Your task to perform on an android device: Go to Amazon Image 0: 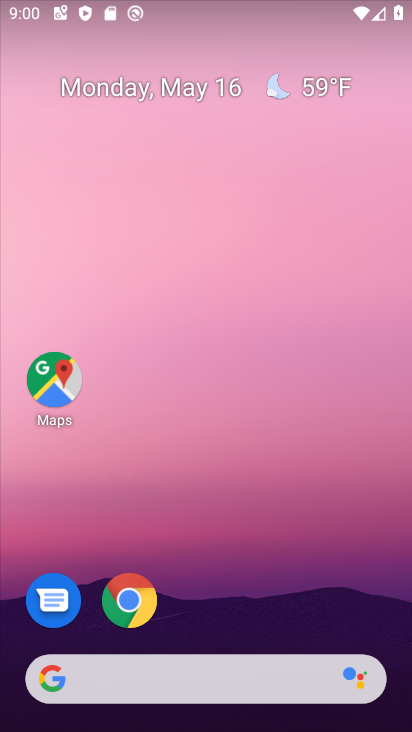
Step 0: click (141, 602)
Your task to perform on an android device: Go to Amazon Image 1: 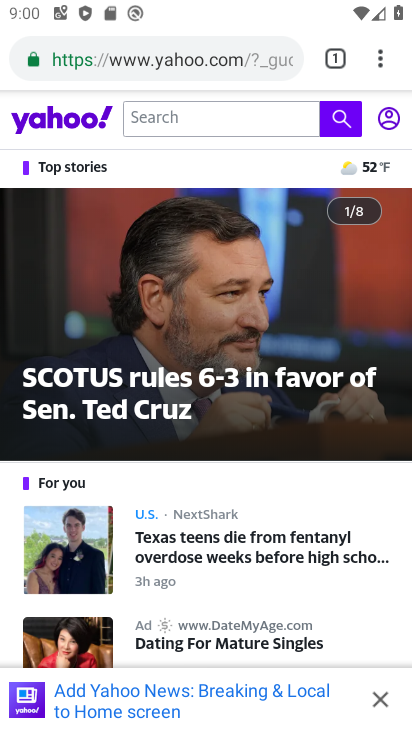
Step 1: click (334, 59)
Your task to perform on an android device: Go to Amazon Image 2: 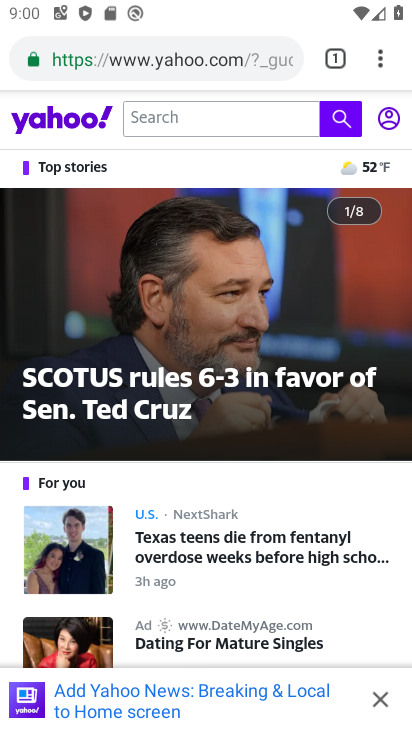
Step 2: click (337, 63)
Your task to perform on an android device: Go to Amazon Image 3: 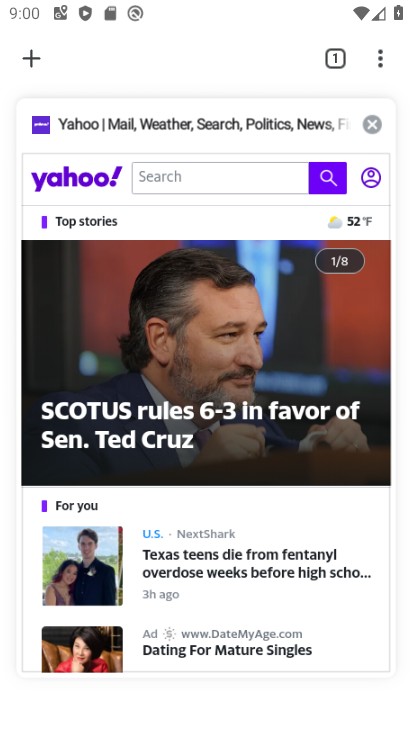
Step 3: click (377, 121)
Your task to perform on an android device: Go to Amazon Image 4: 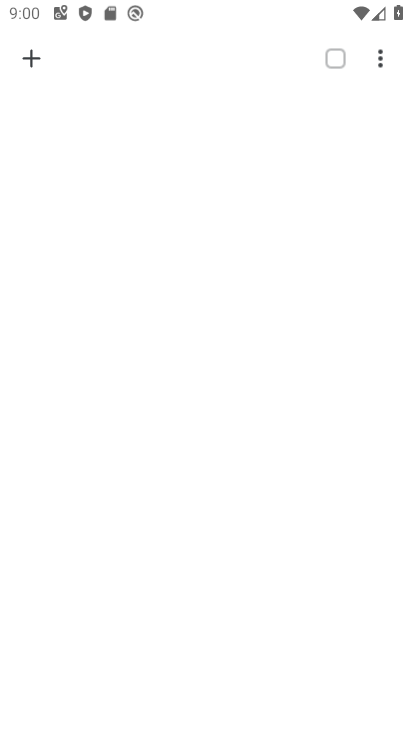
Step 4: press home button
Your task to perform on an android device: Go to Amazon Image 5: 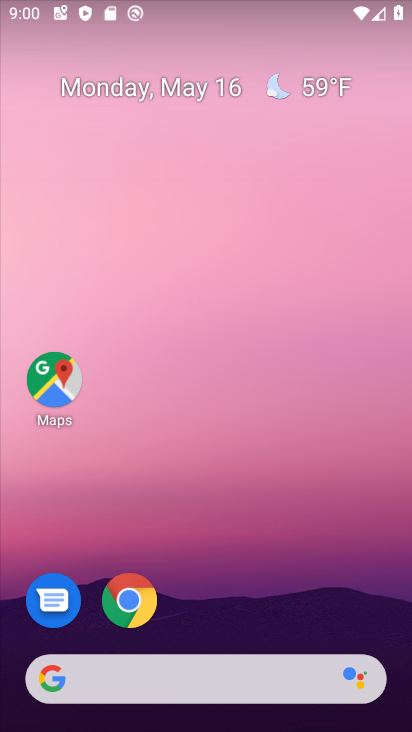
Step 5: click (130, 594)
Your task to perform on an android device: Go to Amazon Image 6: 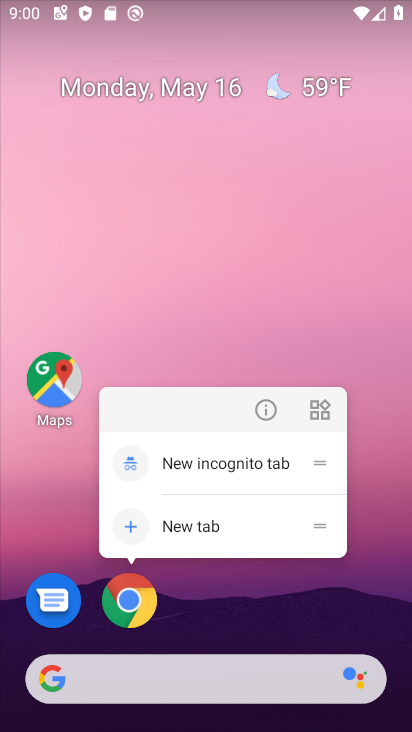
Step 6: click (130, 594)
Your task to perform on an android device: Go to Amazon Image 7: 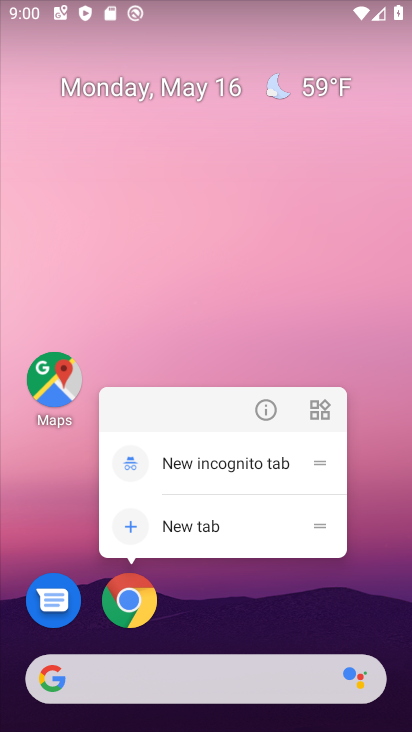
Step 7: click (136, 606)
Your task to perform on an android device: Go to Amazon Image 8: 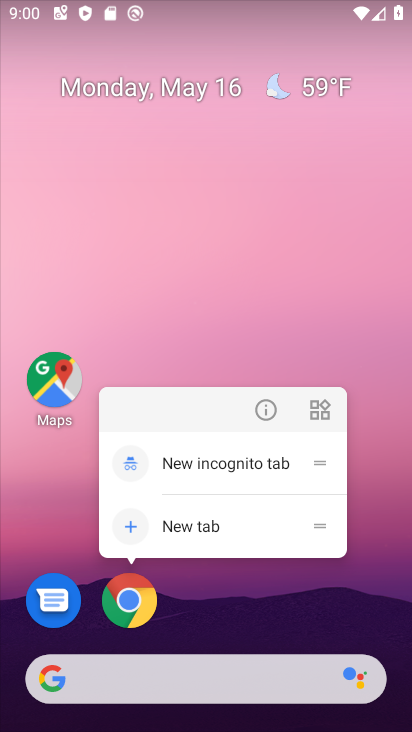
Step 8: click (124, 599)
Your task to perform on an android device: Go to Amazon Image 9: 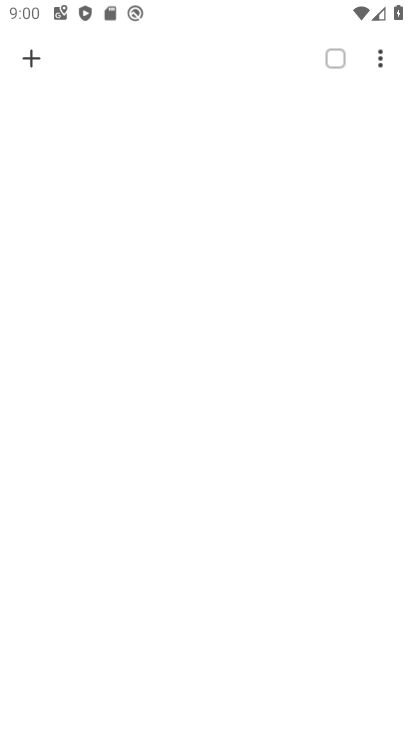
Step 9: click (34, 51)
Your task to perform on an android device: Go to Amazon Image 10: 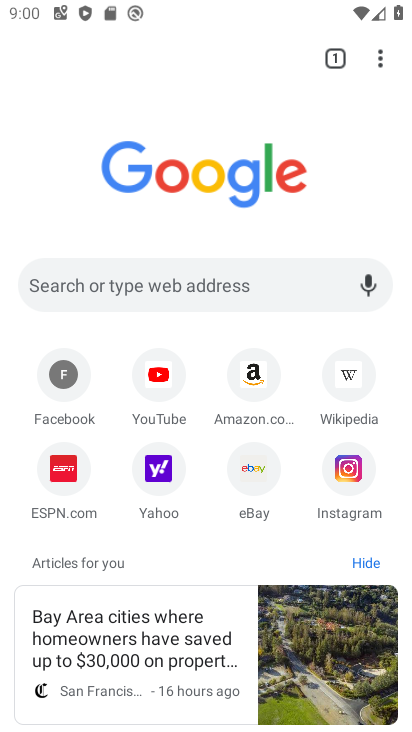
Step 10: click (258, 363)
Your task to perform on an android device: Go to Amazon Image 11: 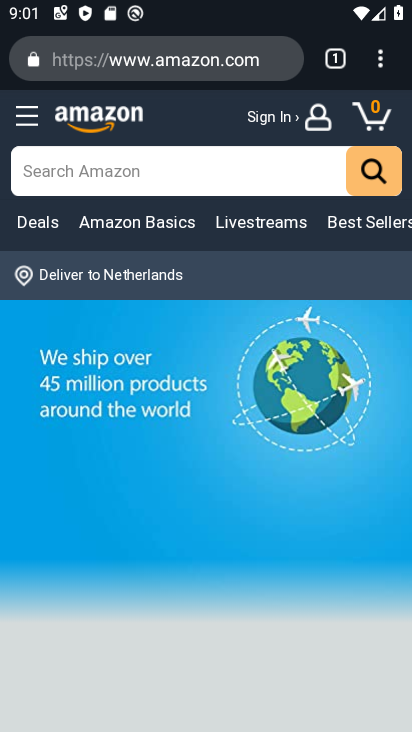
Step 11: task complete